Your task to perform on an android device: Show the shopping cart on newegg. Search for "apple airpods pro" on newegg, select the first entry, and add it to the cart. Image 0: 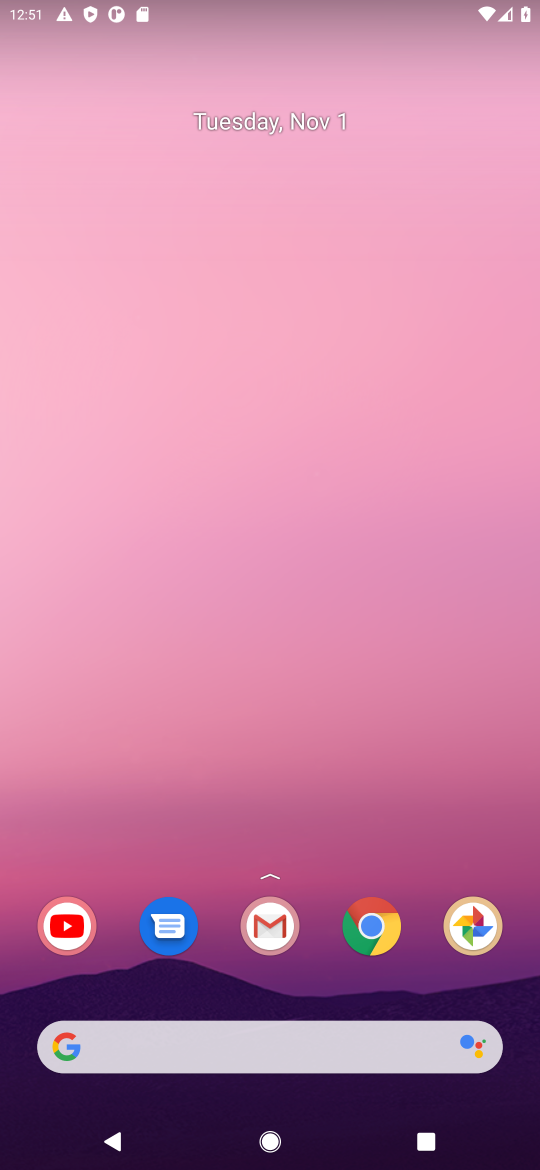
Step 0: click (380, 931)
Your task to perform on an android device: Show the shopping cart on newegg. Search for "apple airpods pro" on newegg, select the first entry, and add it to the cart. Image 1: 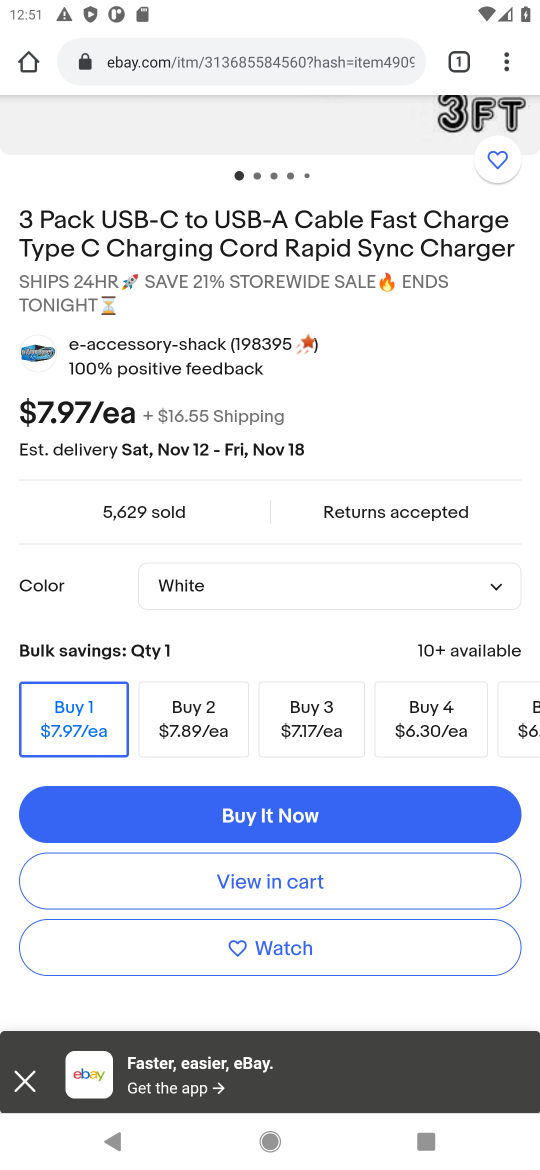
Step 1: click (156, 53)
Your task to perform on an android device: Show the shopping cart on newegg. Search for "apple airpods pro" on newegg, select the first entry, and add it to the cart. Image 2: 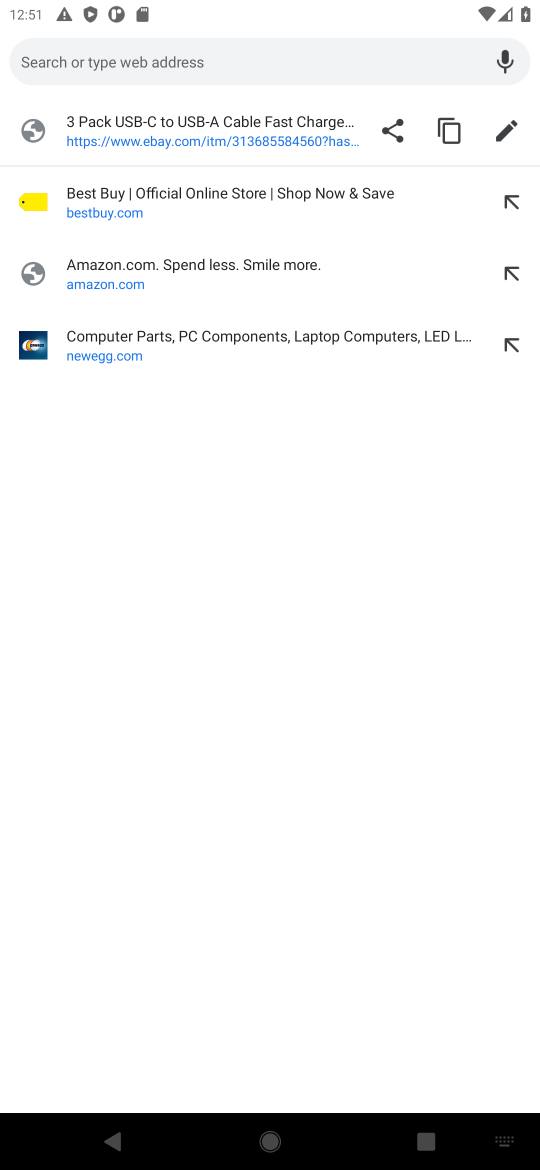
Step 2: type "newegg"
Your task to perform on an android device: Show the shopping cart on newegg. Search for "apple airpods pro" on newegg, select the first entry, and add it to the cart. Image 3: 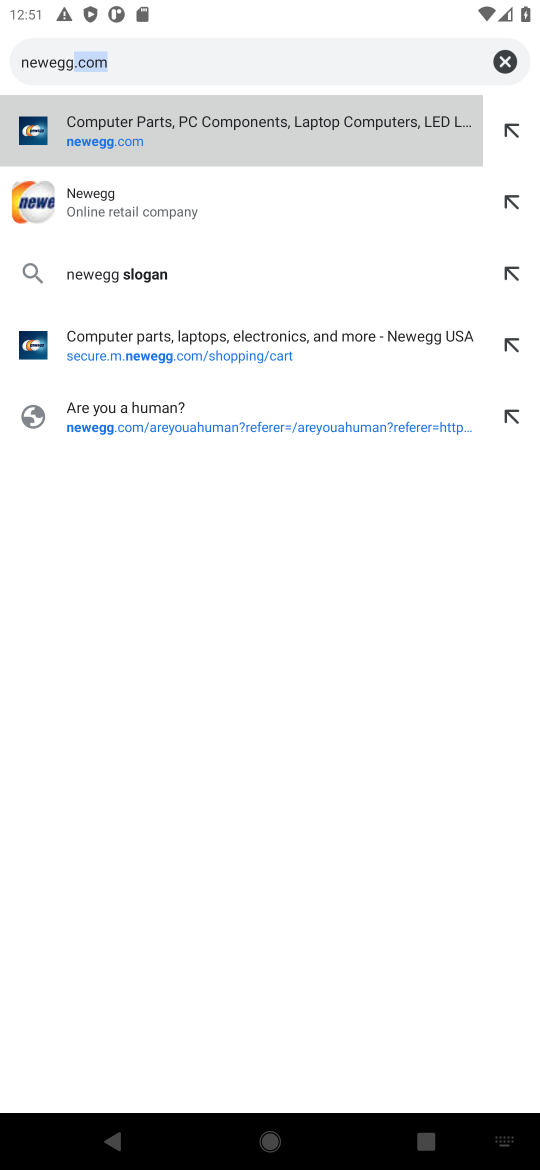
Step 3: press enter
Your task to perform on an android device: Show the shopping cart on newegg. Search for "apple airpods pro" on newegg, select the first entry, and add it to the cart. Image 4: 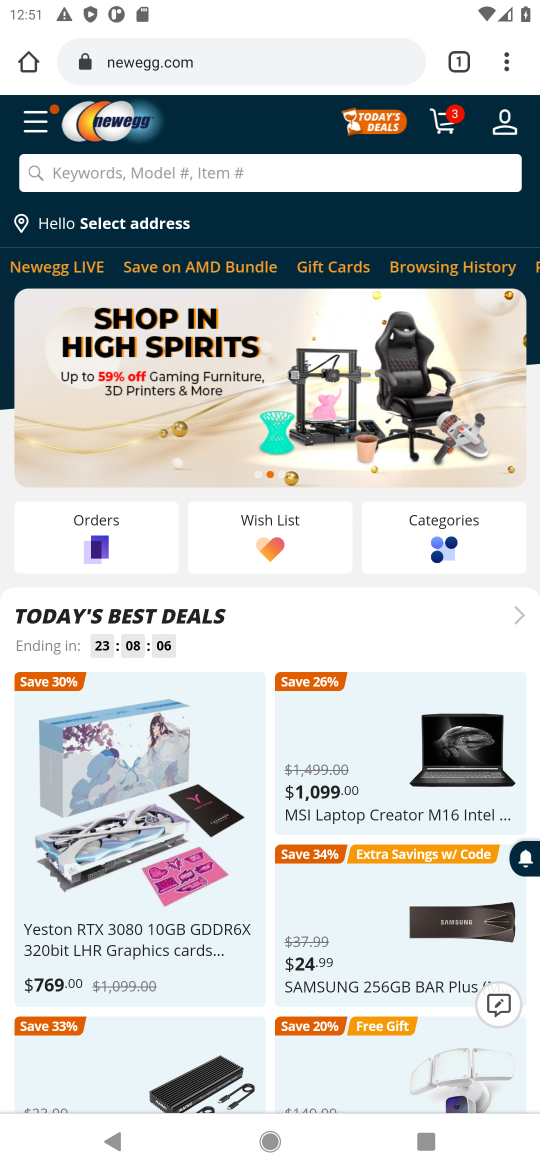
Step 4: click (270, 175)
Your task to perform on an android device: Show the shopping cart on newegg. Search for "apple airpods pro" on newegg, select the first entry, and add it to the cart. Image 5: 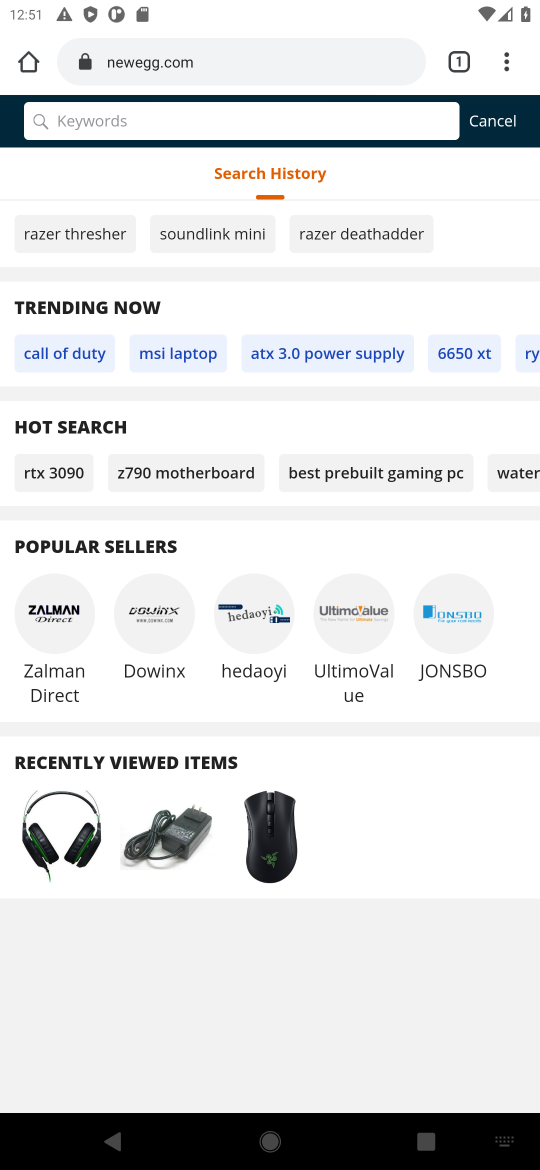
Step 5: click (486, 125)
Your task to perform on an android device: Show the shopping cart on newegg. Search for "apple airpods pro" on newegg, select the first entry, and add it to the cart. Image 6: 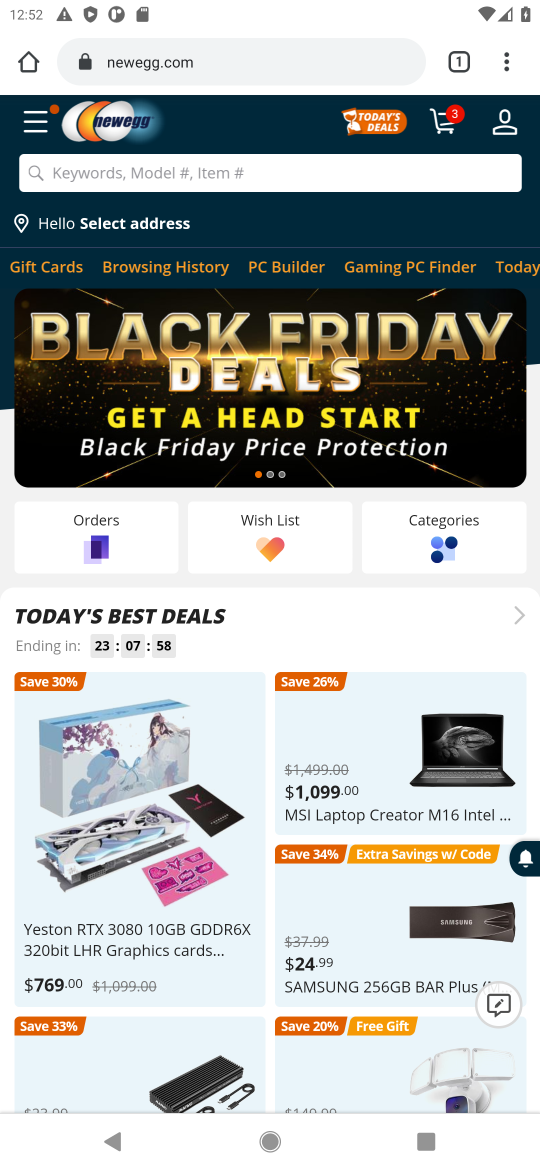
Step 6: click (447, 127)
Your task to perform on an android device: Show the shopping cart on newegg. Search for "apple airpods pro" on newegg, select the first entry, and add it to the cart. Image 7: 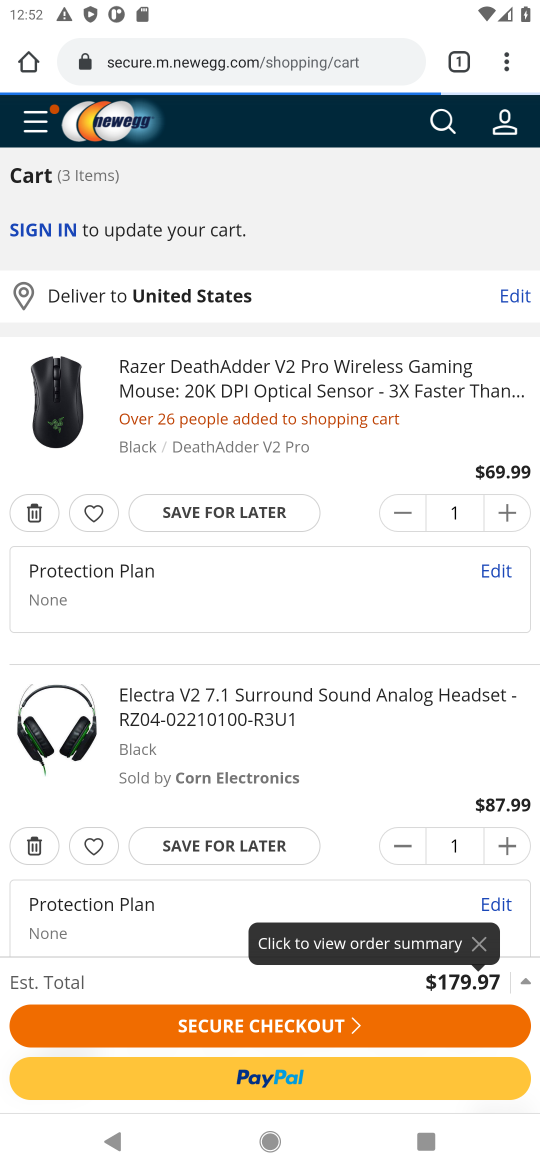
Step 7: click (446, 134)
Your task to perform on an android device: Show the shopping cart on newegg. Search for "apple airpods pro" on newegg, select the first entry, and add it to the cart. Image 8: 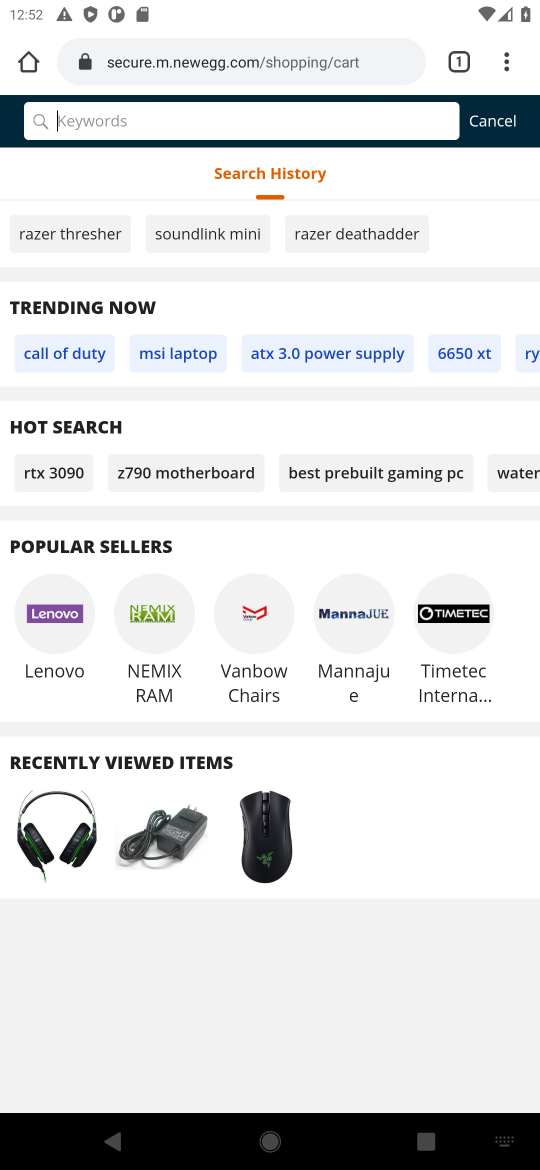
Step 8: type "apple airpods pro"
Your task to perform on an android device: Show the shopping cart on newegg. Search for "apple airpods pro" on newegg, select the first entry, and add it to the cart. Image 9: 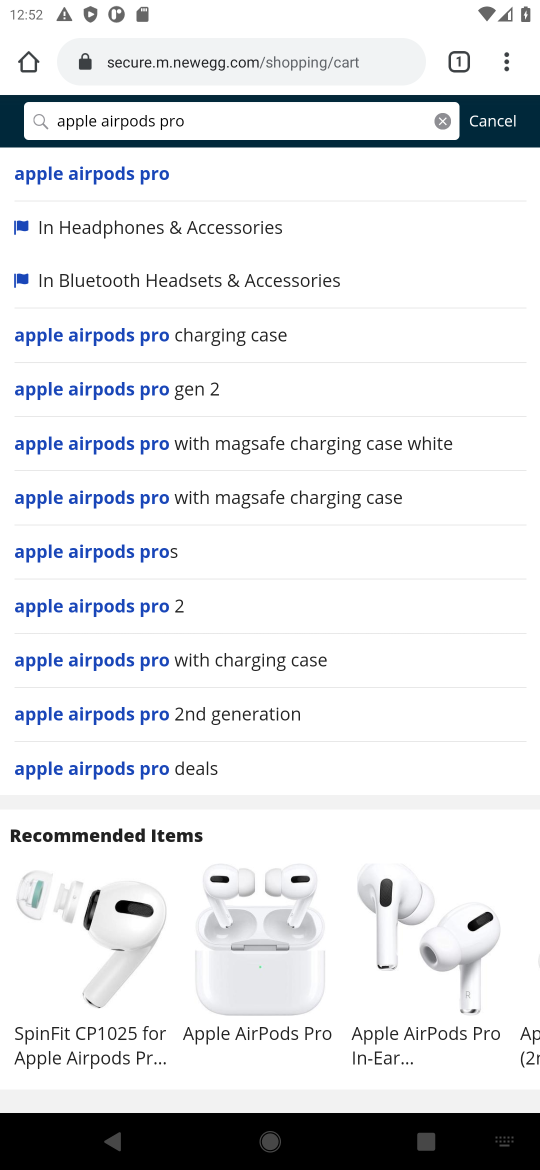
Step 9: press enter
Your task to perform on an android device: Show the shopping cart on newegg. Search for "apple airpods pro" on newegg, select the first entry, and add it to the cart. Image 10: 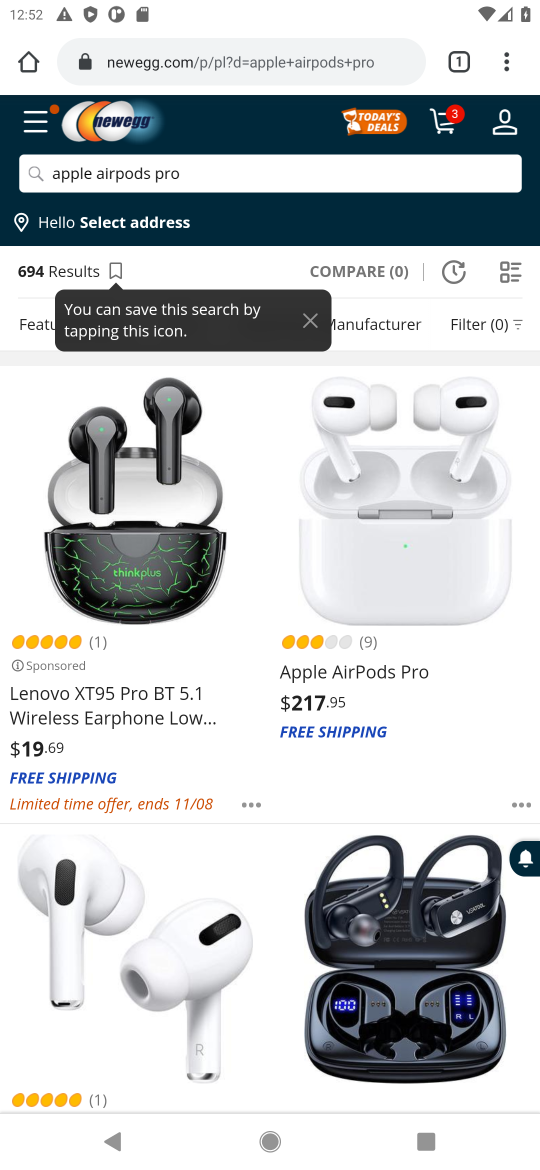
Step 10: click (388, 604)
Your task to perform on an android device: Show the shopping cart on newegg. Search for "apple airpods pro" on newegg, select the first entry, and add it to the cart. Image 11: 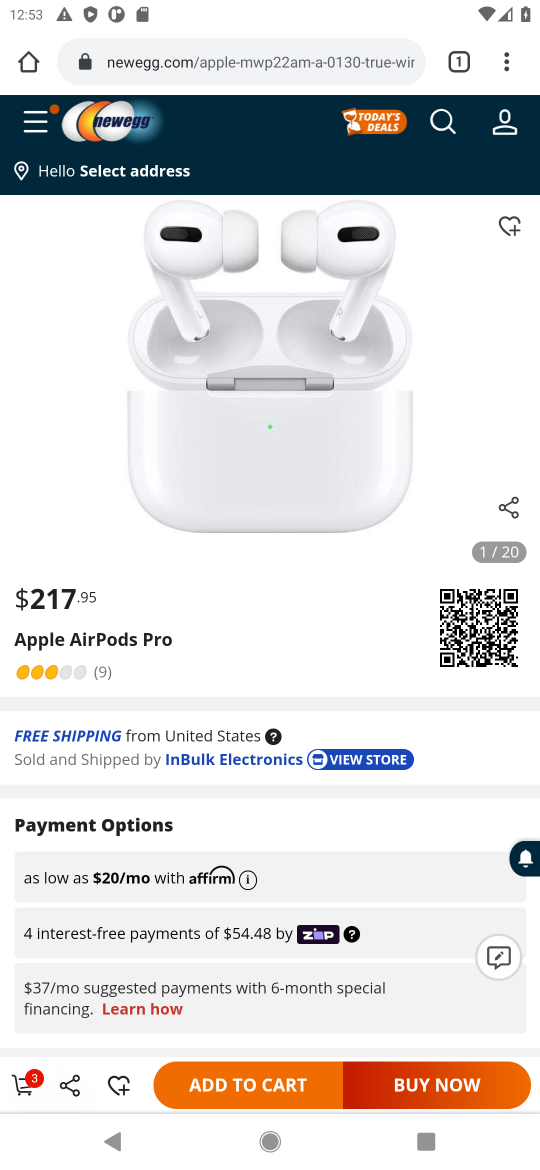
Step 11: drag from (394, 856) to (338, 584)
Your task to perform on an android device: Show the shopping cart on newegg. Search for "apple airpods pro" on newegg, select the first entry, and add it to the cart. Image 12: 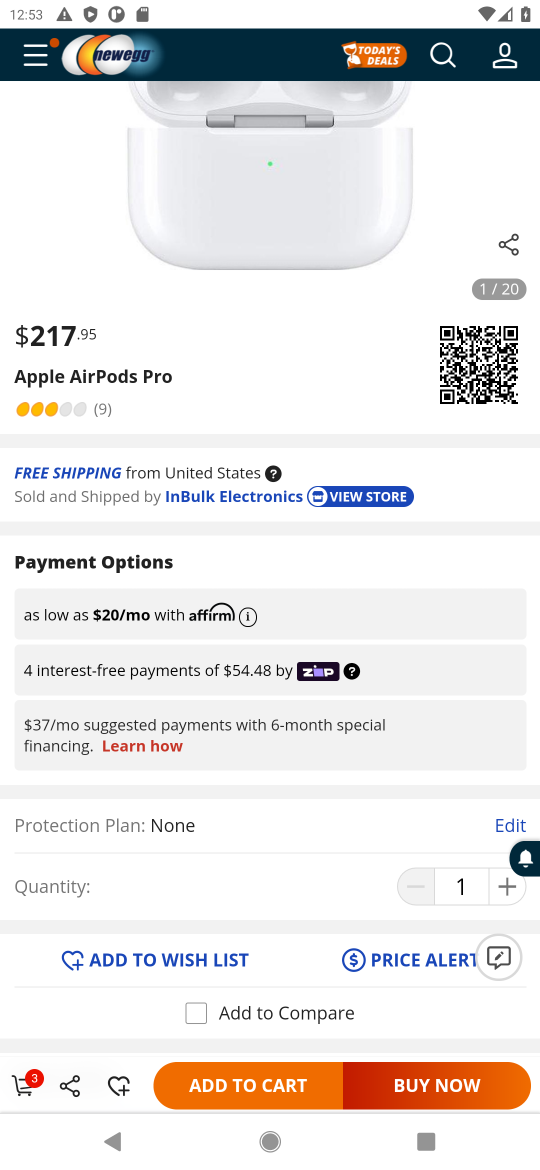
Step 12: click (259, 1086)
Your task to perform on an android device: Show the shopping cart on newegg. Search for "apple airpods pro" on newegg, select the first entry, and add it to the cart. Image 13: 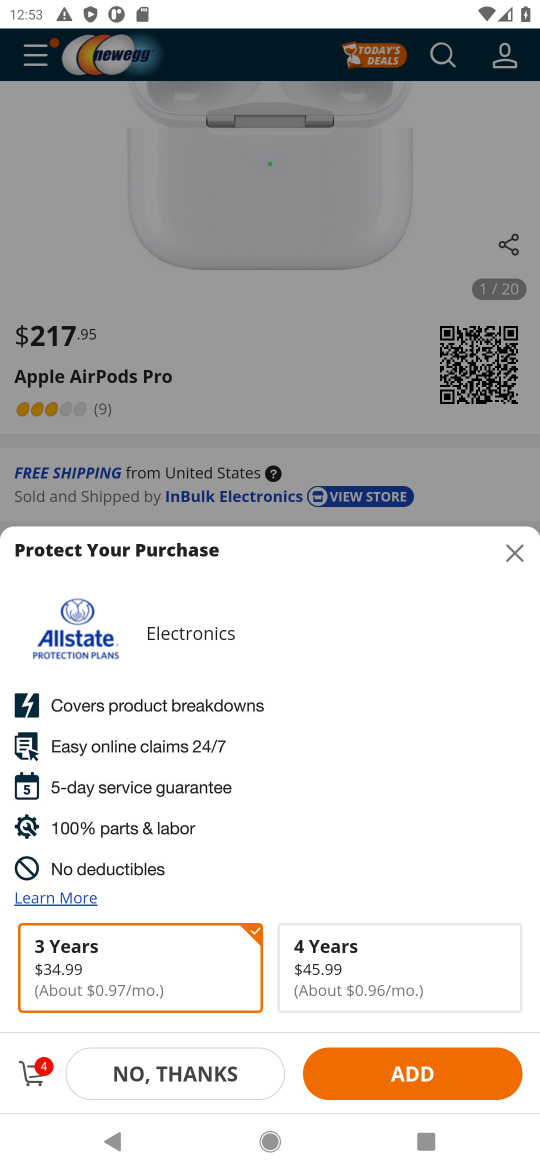
Step 13: click (206, 1072)
Your task to perform on an android device: Show the shopping cart on newegg. Search for "apple airpods pro" on newegg, select the first entry, and add it to the cart. Image 14: 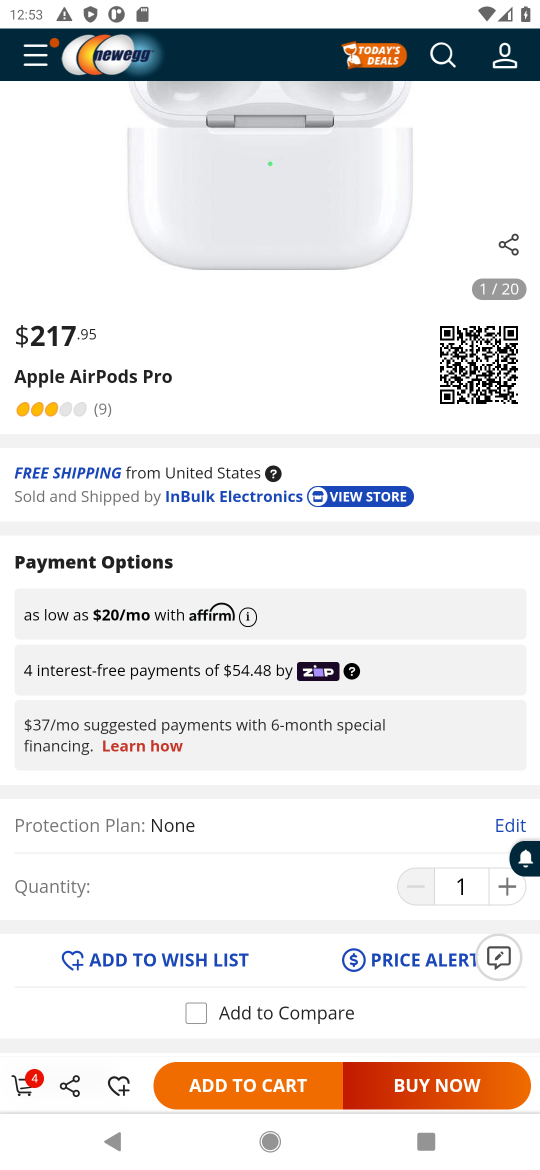
Step 14: task complete